Your task to perform on an android device: Do I have any events this weekend? Image 0: 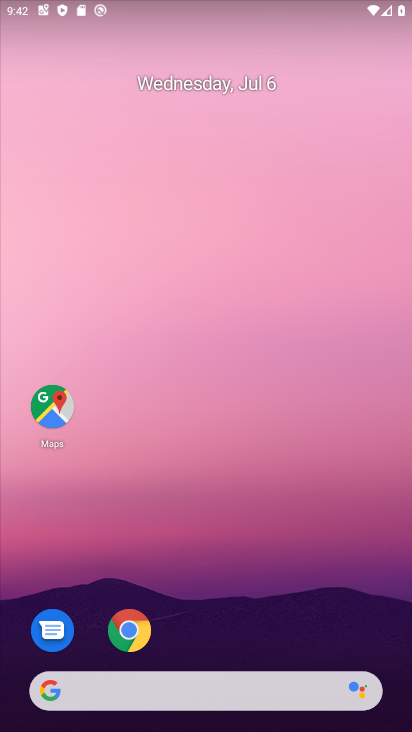
Step 0: drag from (386, 635) to (339, 120)
Your task to perform on an android device: Do I have any events this weekend? Image 1: 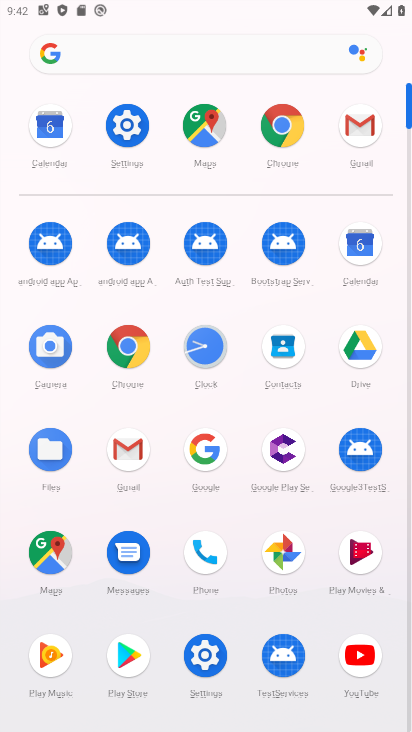
Step 1: click (363, 242)
Your task to perform on an android device: Do I have any events this weekend? Image 2: 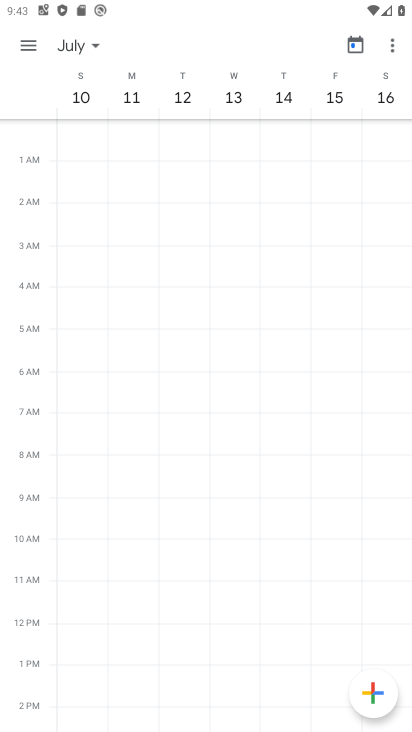
Step 2: click (29, 46)
Your task to perform on an android device: Do I have any events this weekend? Image 3: 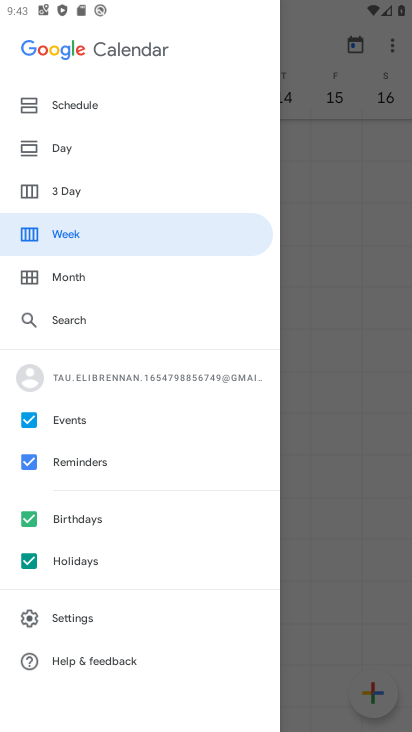
Step 3: click (71, 234)
Your task to perform on an android device: Do I have any events this weekend? Image 4: 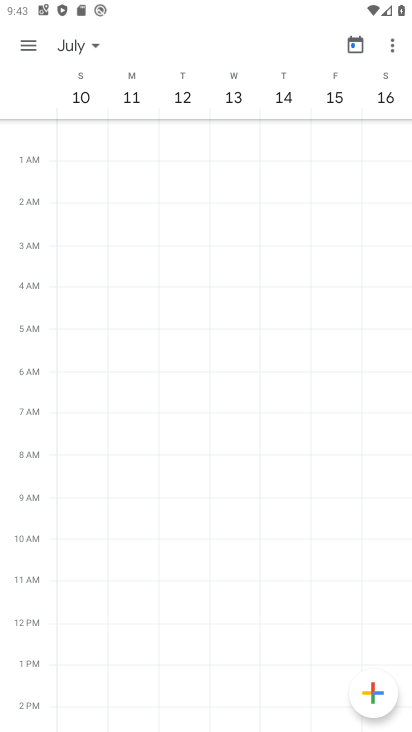
Step 4: click (92, 46)
Your task to perform on an android device: Do I have any events this weekend? Image 5: 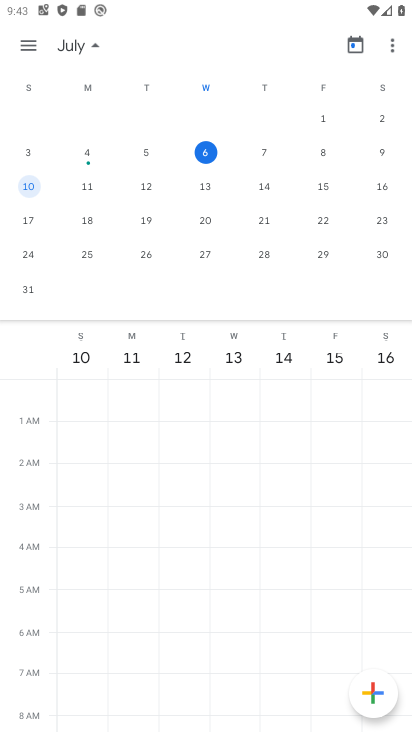
Step 5: click (28, 148)
Your task to perform on an android device: Do I have any events this weekend? Image 6: 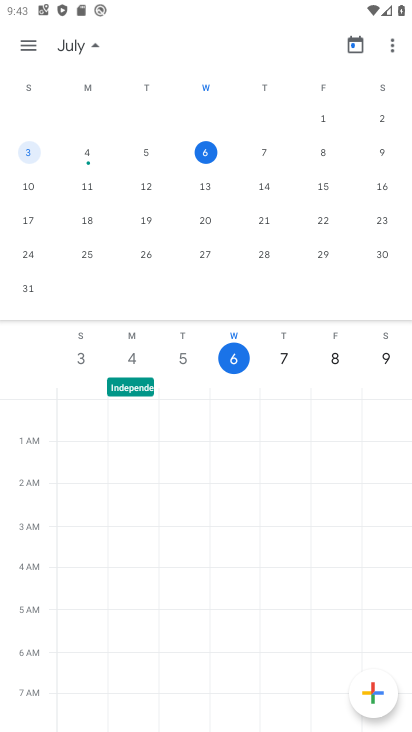
Step 6: task complete